Your task to perform on an android device: remove spam from my inbox in the gmail app Image 0: 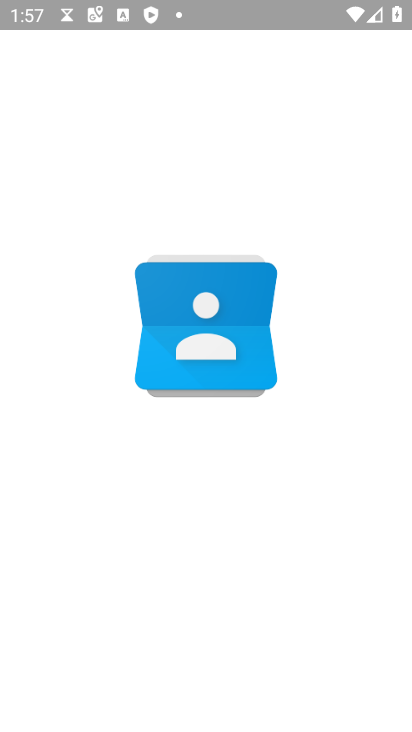
Step 0: drag from (205, 621) to (229, 245)
Your task to perform on an android device: remove spam from my inbox in the gmail app Image 1: 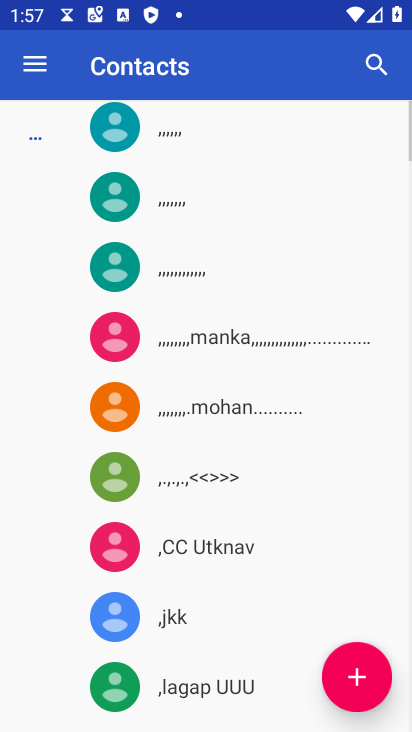
Step 1: press home button
Your task to perform on an android device: remove spam from my inbox in the gmail app Image 2: 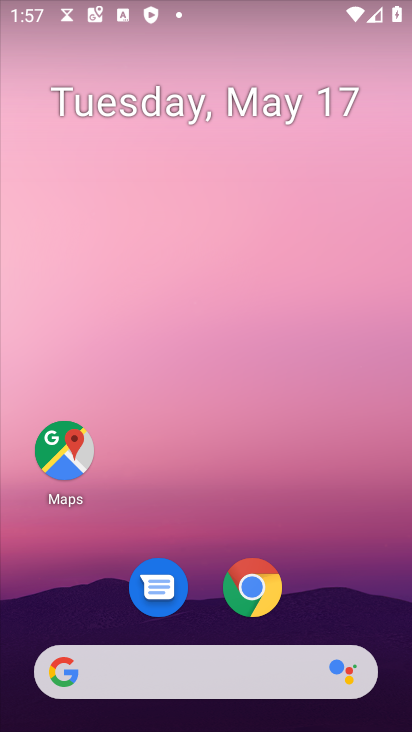
Step 2: drag from (198, 619) to (211, 203)
Your task to perform on an android device: remove spam from my inbox in the gmail app Image 3: 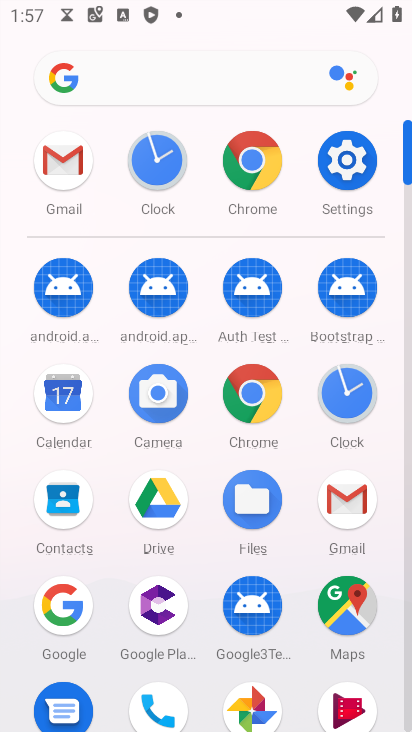
Step 3: click (340, 492)
Your task to perform on an android device: remove spam from my inbox in the gmail app Image 4: 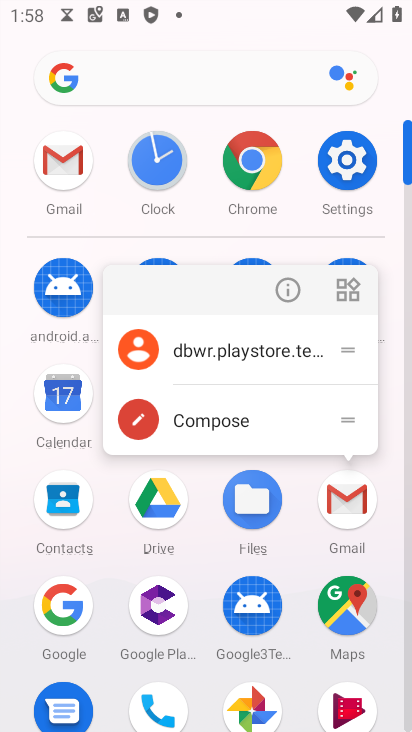
Step 4: click (207, 365)
Your task to perform on an android device: remove spam from my inbox in the gmail app Image 5: 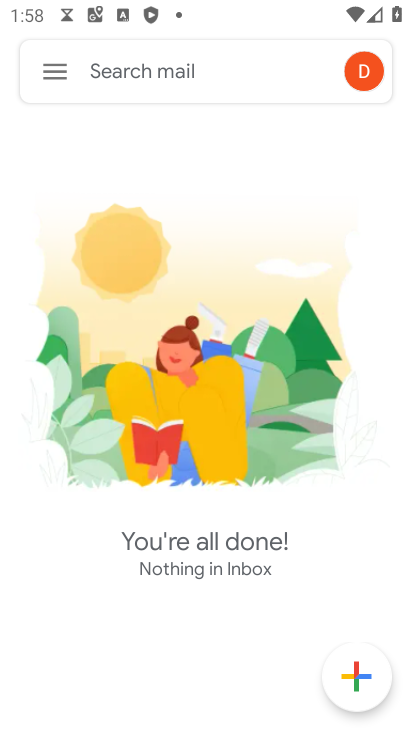
Step 5: click (59, 83)
Your task to perform on an android device: remove spam from my inbox in the gmail app Image 6: 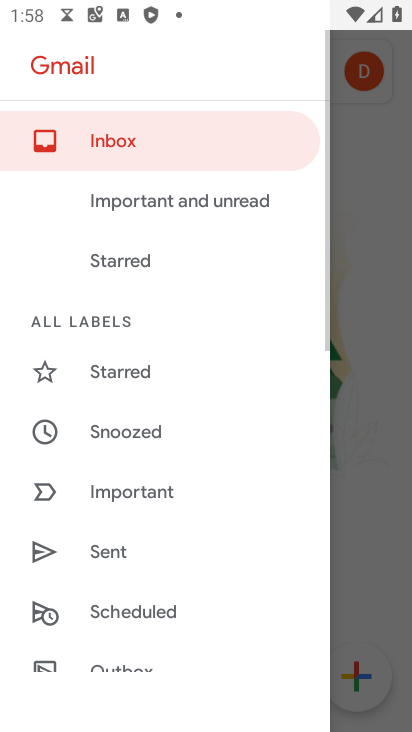
Step 6: drag from (183, 562) to (220, 136)
Your task to perform on an android device: remove spam from my inbox in the gmail app Image 7: 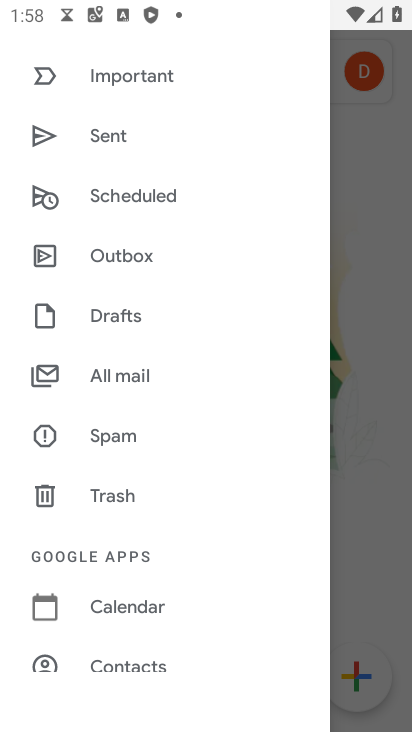
Step 7: click (119, 429)
Your task to perform on an android device: remove spam from my inbox in the gmail app Image 8: 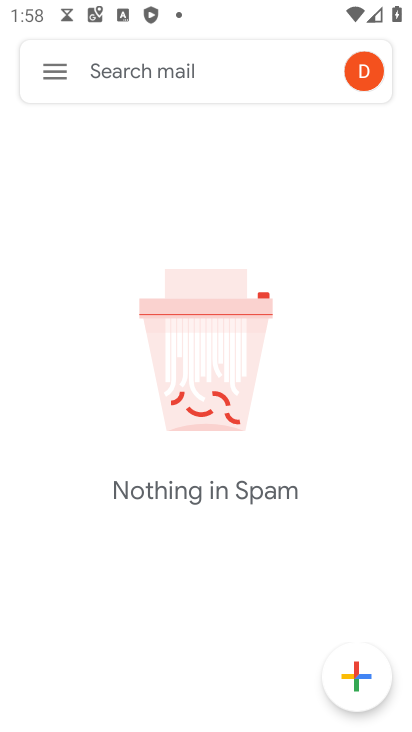
Step 8: click (64, 67)
Your task to perform on an android device: remove spam from my inbox in the gmail app Image 9: 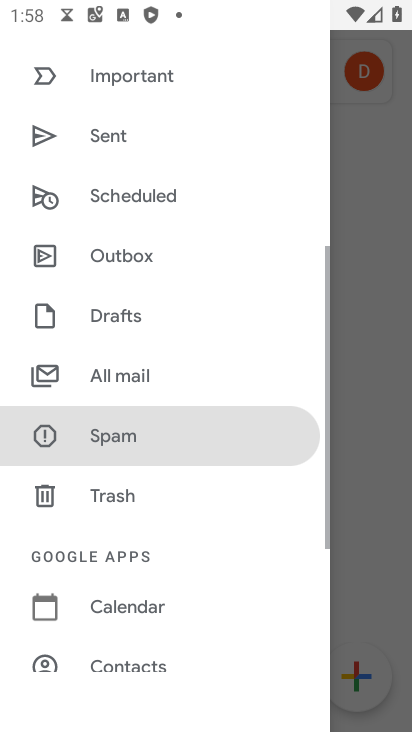
Step 9: drag from (260, 294) to (295, 52)
Your task to perform on an android device: remove spam from my inbox in the gmail app Image 10: 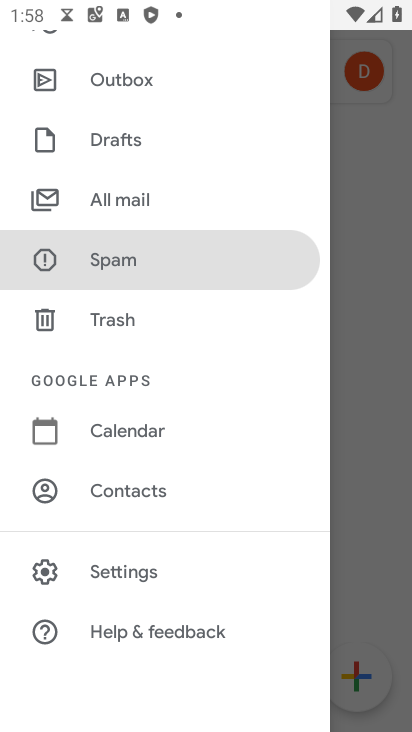
Step 10: click (116, 264)
Your task to perform on an android device: remove spam from my inbox in the gmail app Image 11: 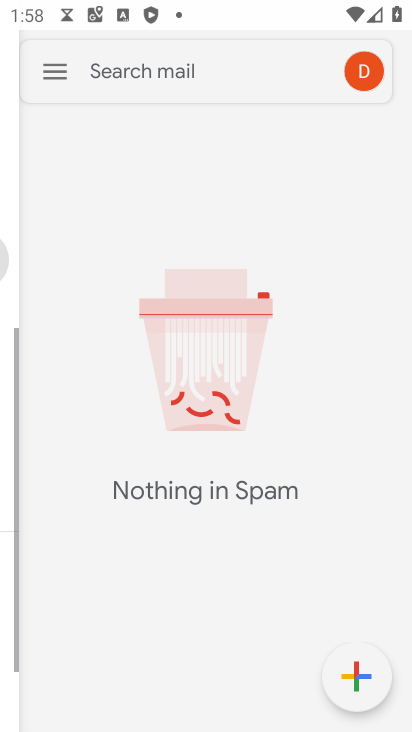
Step 11: task complete